Your task to perform on an android device: Show me popular games on the Play Store Image 0: 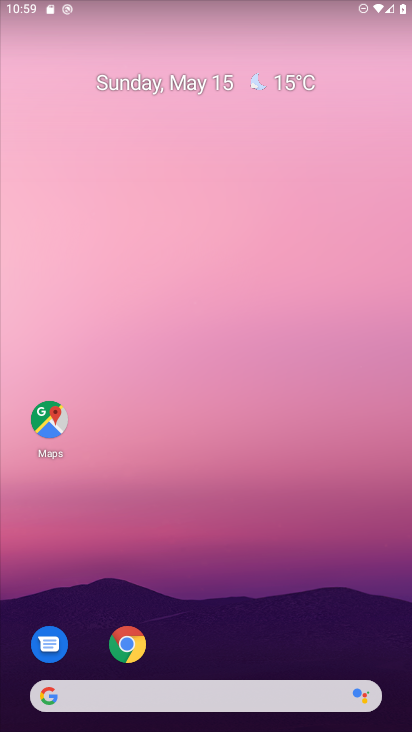
Step 0: drag from (154, 669) to (99, 327)
Your task to perform on an android device: Show me popular games on the Play Store Image 1: 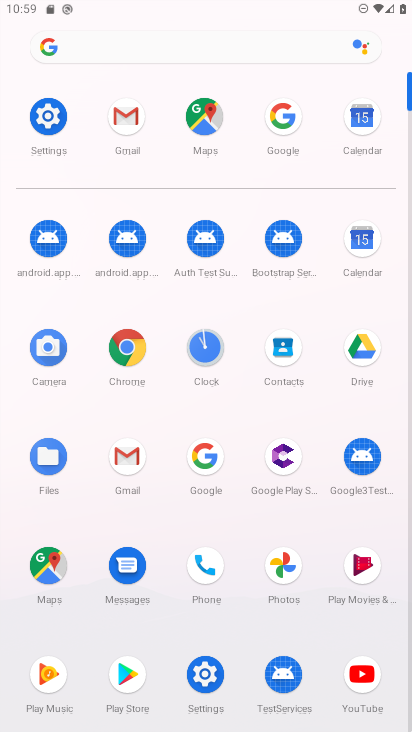
Step 1: drag from (164, 421) to (163, 384)
Your task to perform on an android device: Show me popular games on the Play Store Image 2: 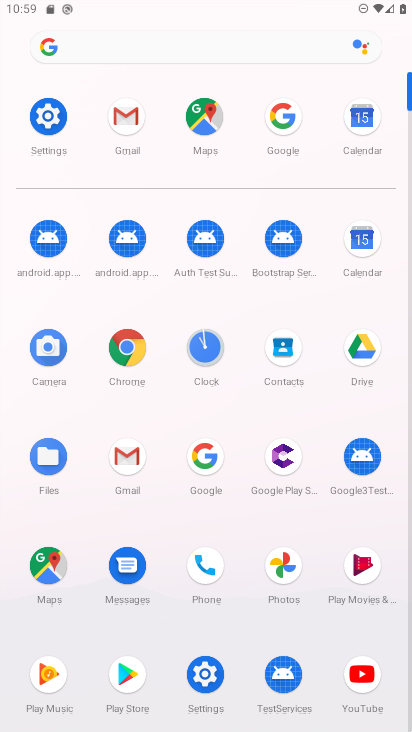
Step 2: click (126, 668)
Your task to perform on an android device: Show me popular games on the Play Store Image 3: 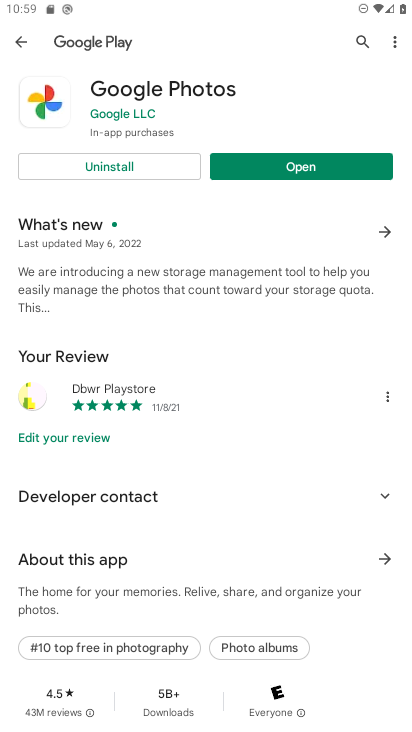
Step 3: click (17, 46)
Your task to perform on an android device: Show me popular games on the Play Store Image 4: 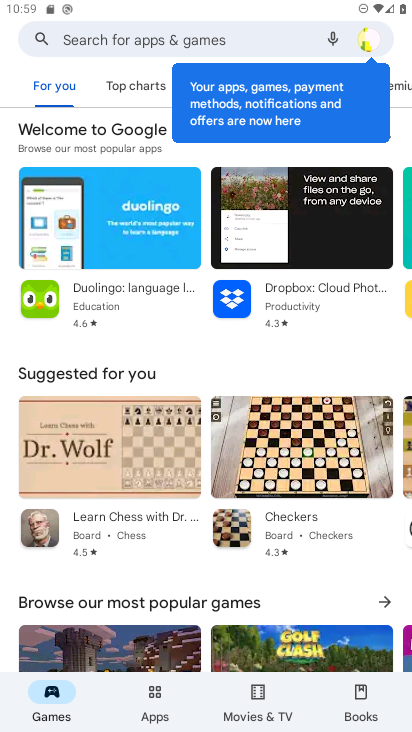
Step 4: click (231, 37)
Your task to perform on an android device: Show me popular games on the Play Store Image 5: 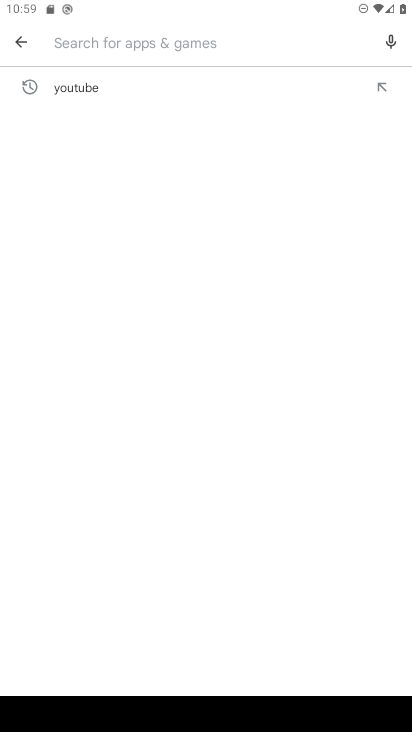
Step 5: click (23, 43)
Your task to perform on an android device: Show me popular games on the Play Store Image 6: 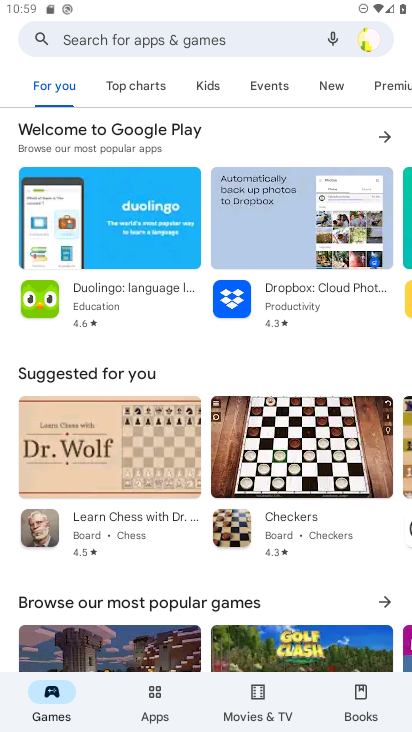
Step 6: drag from (186, 343) to (180, 301)
Your task to perform on an android device: Show me popular games on the Play Store Image 7: 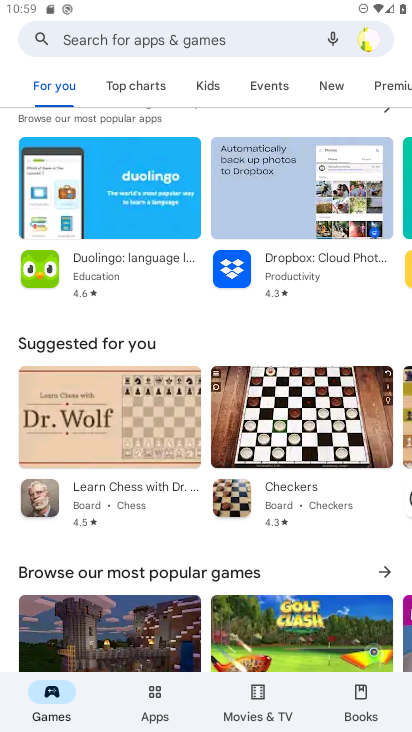
Step 7: drag from (145, 172) to (161, 406)
Your task to perform on an android device: Show me popular games on the Play Store Image 8: 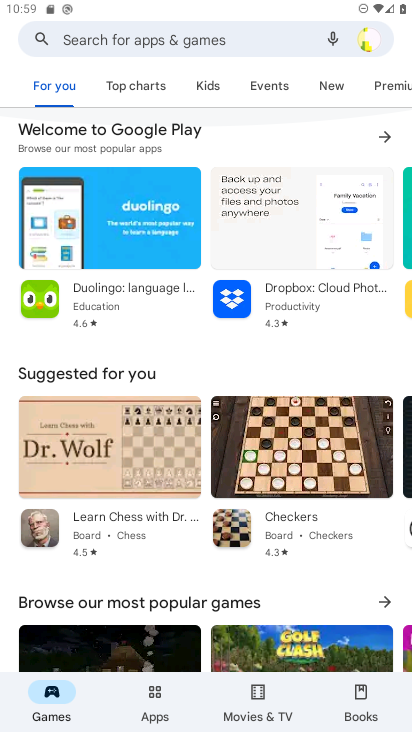
Step 8: click (195, 358)
Your task to perform on an android device: Show me popular games on the Play Store Image 9: 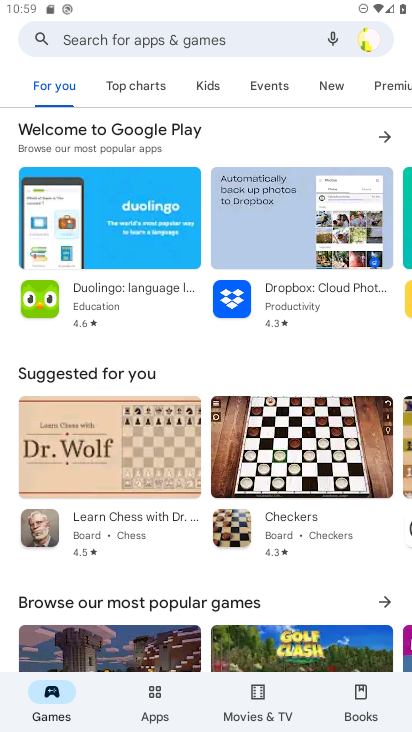
Step 9: click (144, 43)
Your task to perform on an android device: Show me popular games on the Play Store Image 10: 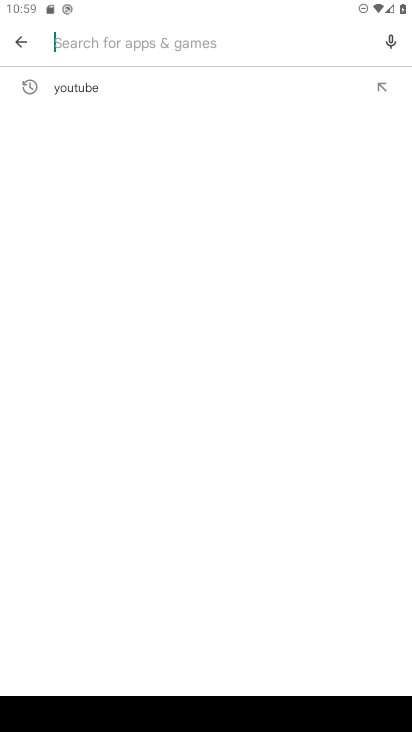
Step 10: type "popular games"
Your task to perform on an android device: Show me popular games on the Play Store Image 11: 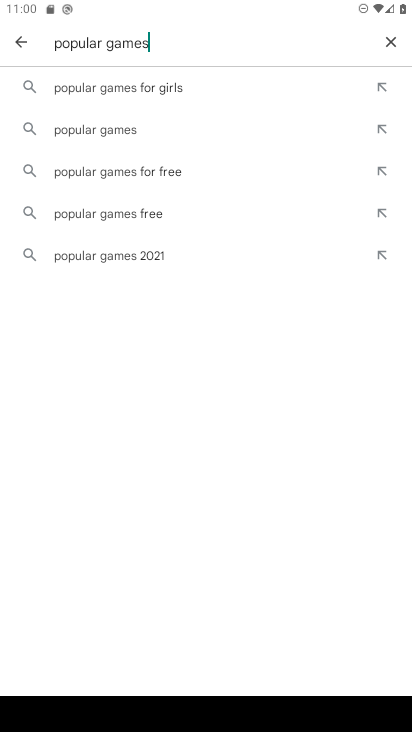
Step 11: click (117, 94)
Your task to perform on an android device: Show me popular games on the Play Store Image 12: 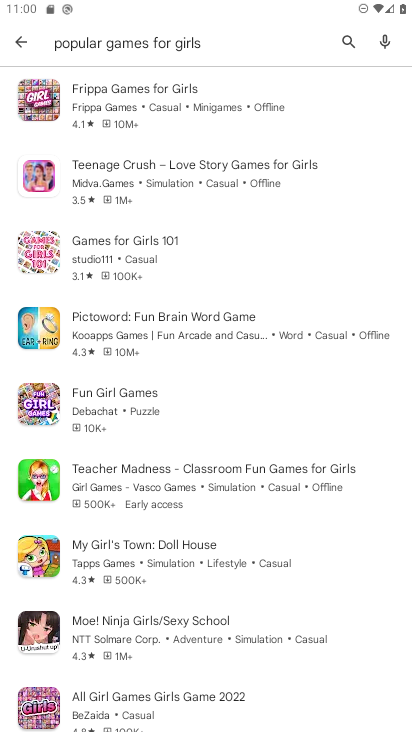
Step 12: task complete